Your task to perform on an android device: Open Wikipedia Image 0: 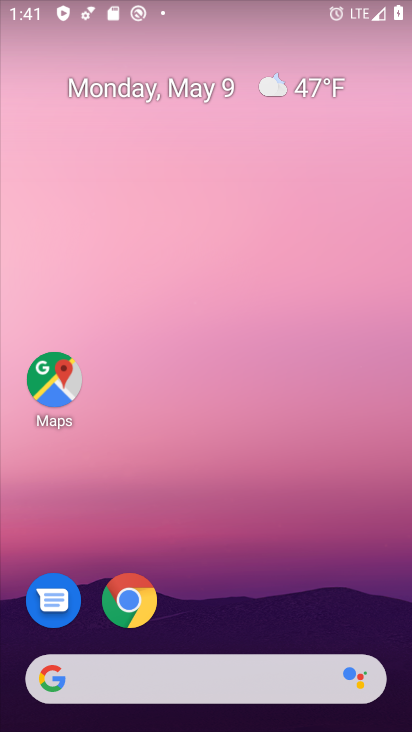
Step 0: click (121, 595)
Your task to perform on an android device: Open Wikipedia Image 1: 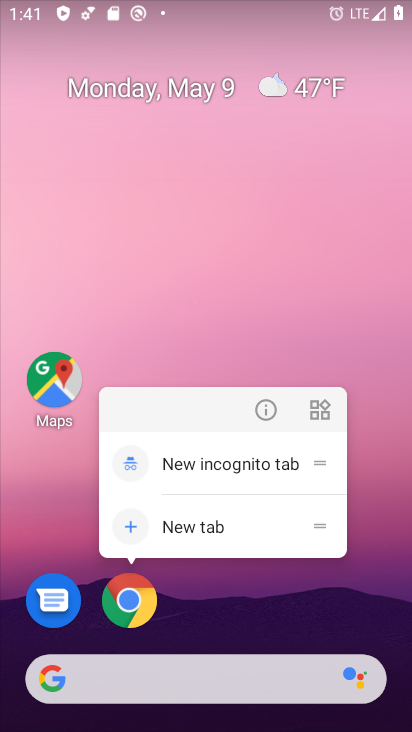
Step 1: click (121, 595)
Your task to perform on an android device: Open Wikipedia Image 2: 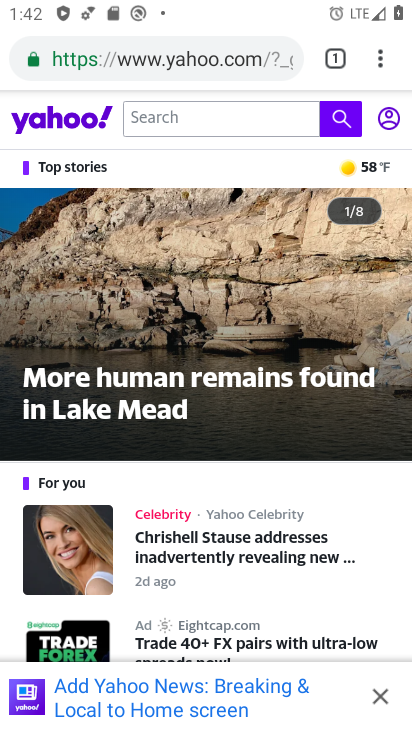
Step 2: click (212, 66)
Your task to perform on an android device: Open Wikipedia Image 3: 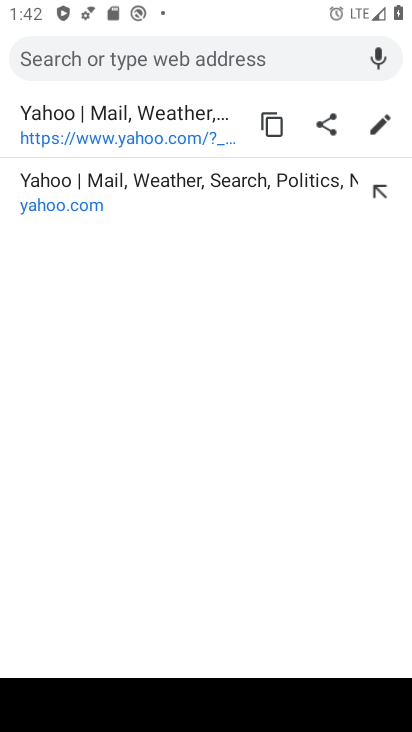
Step 3: type "wikipedia"
Your task to perform on an android device: Open Wikipedia Image 4: 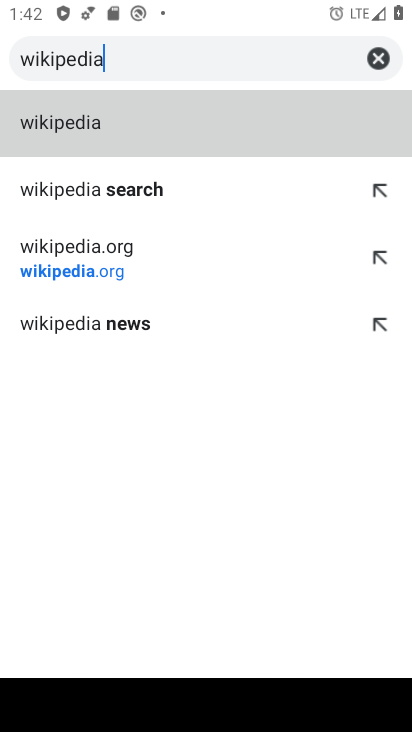
Step 4: click (96, 283)
Your task to perform on an android device: Open Wikipedia Image 5: 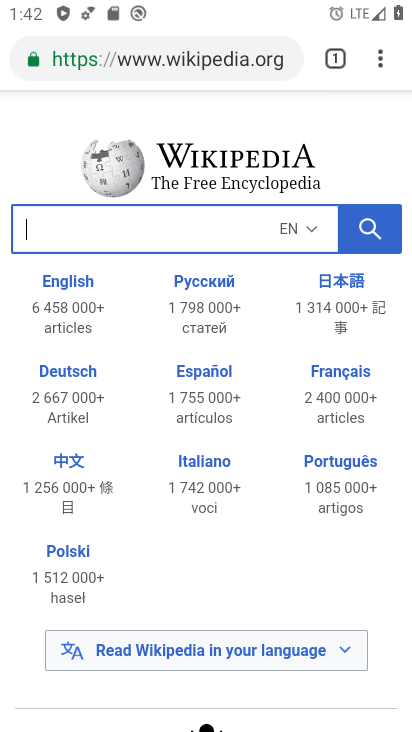
Step 5: task complete